Your task to perform on an android device: toggle wifi Image 0: 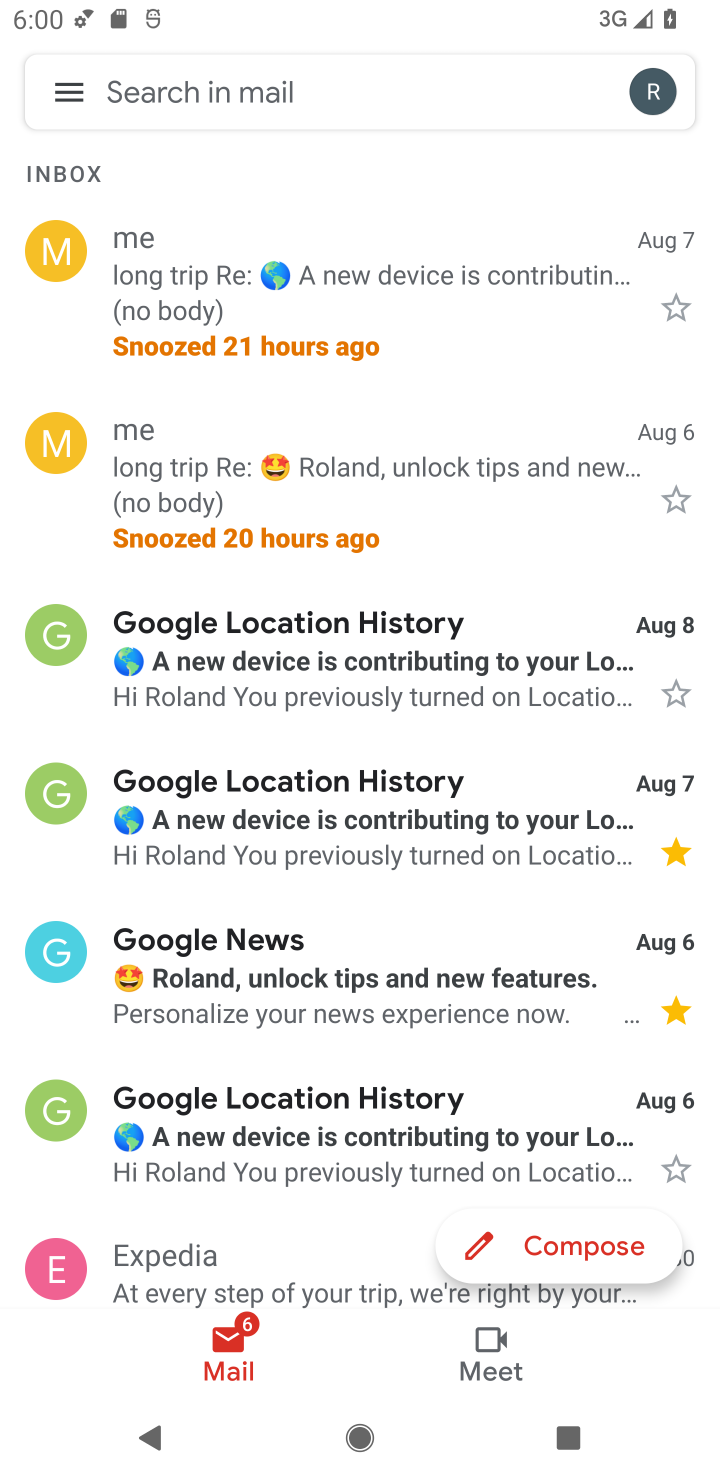
Step 0: press home button
Your task to perform on an android device: toggle wifi Image 1: 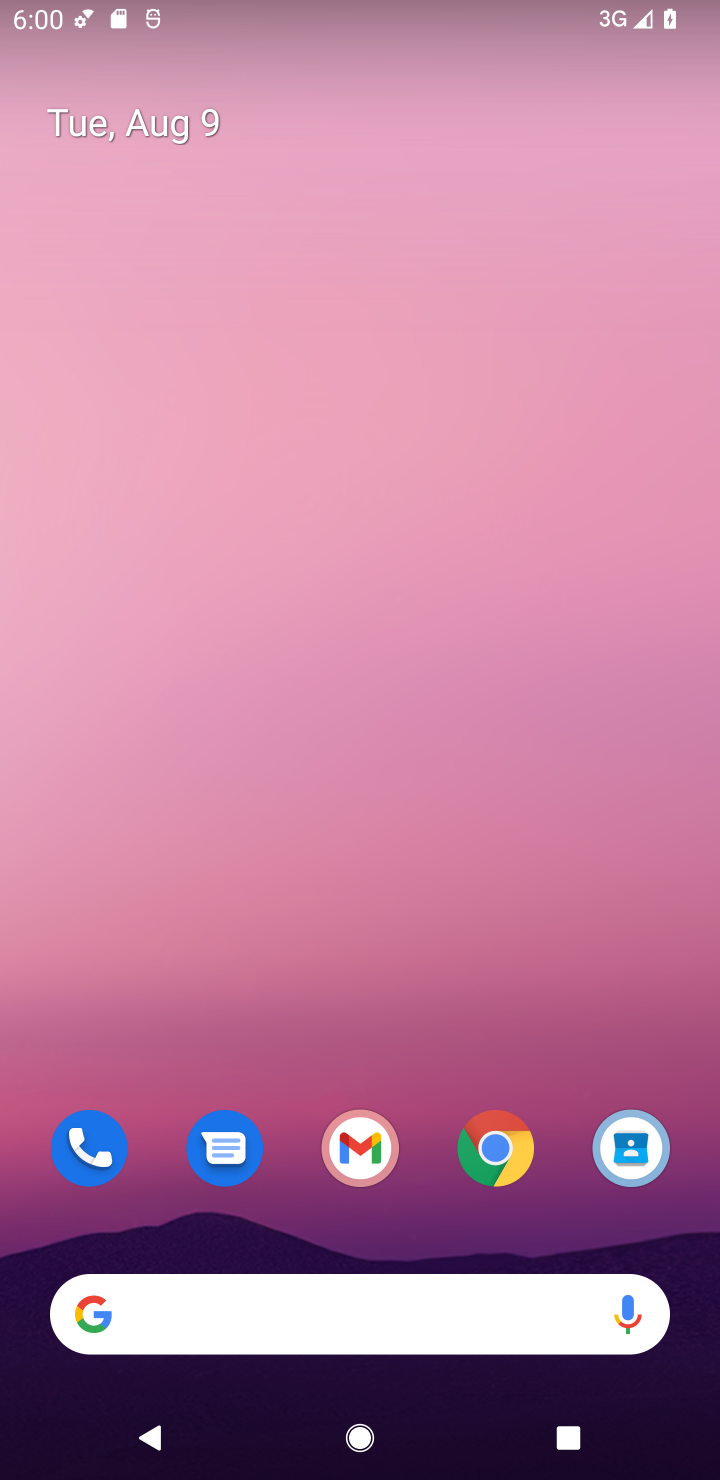
Step 1: drag from (396, 42) to (553, 523)
Your task to perform on an android device: toggle wifi Image 2: 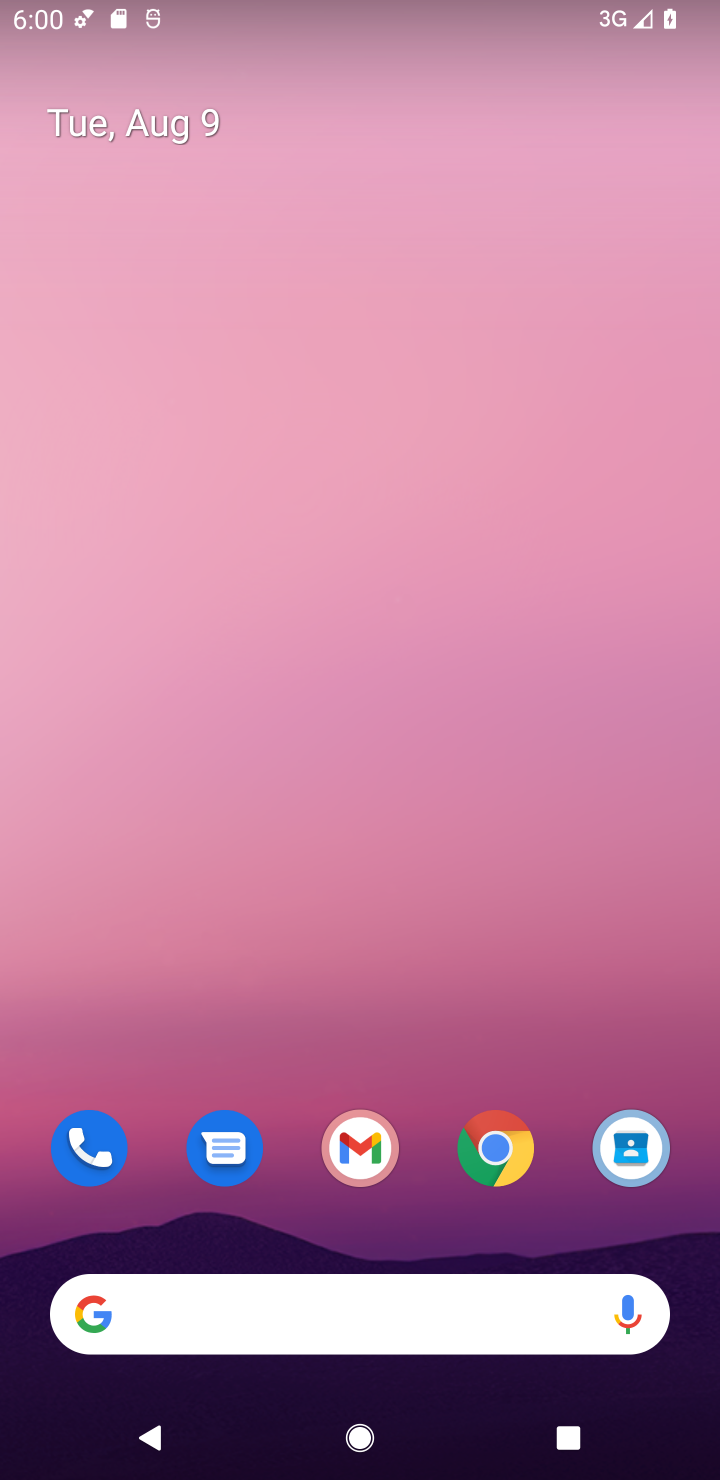
Step 2: drag from (341, 1219) to (467, 6)
Your task to perform on an android device: toggle wifi Image 3: 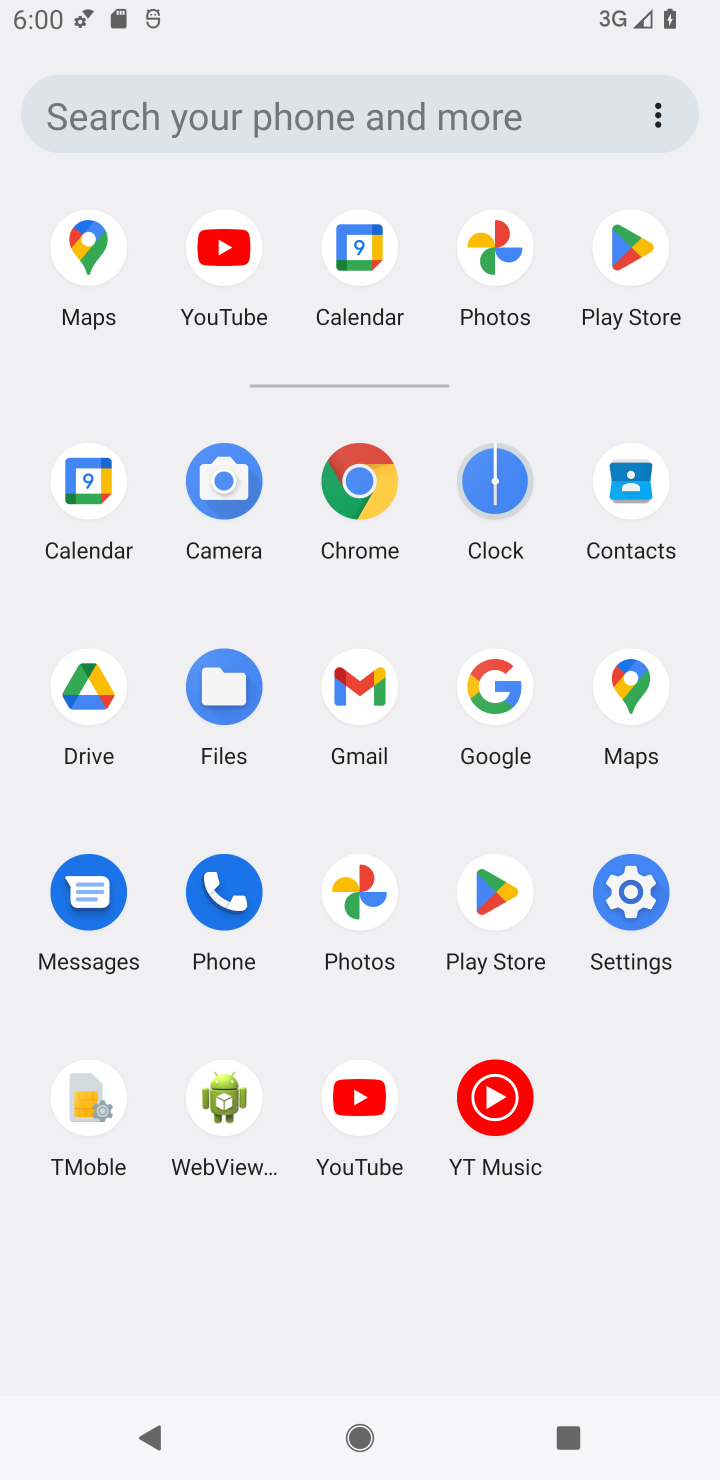
Step 3: click (649, 922)
Your task to perform on an android device: toggle wifi Image 4: 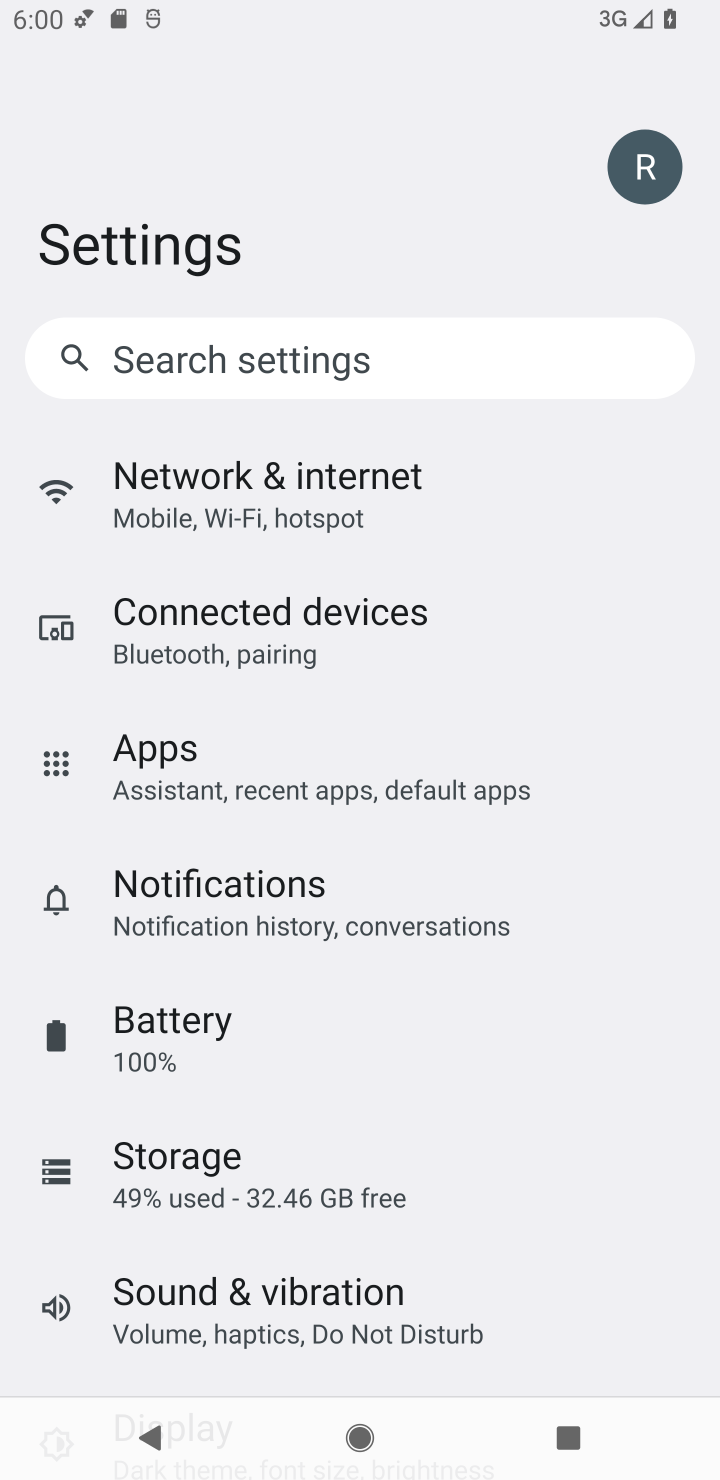
Step 4: click (354, 511)
Your task to perform on an android device: toggle wifi Image 5: 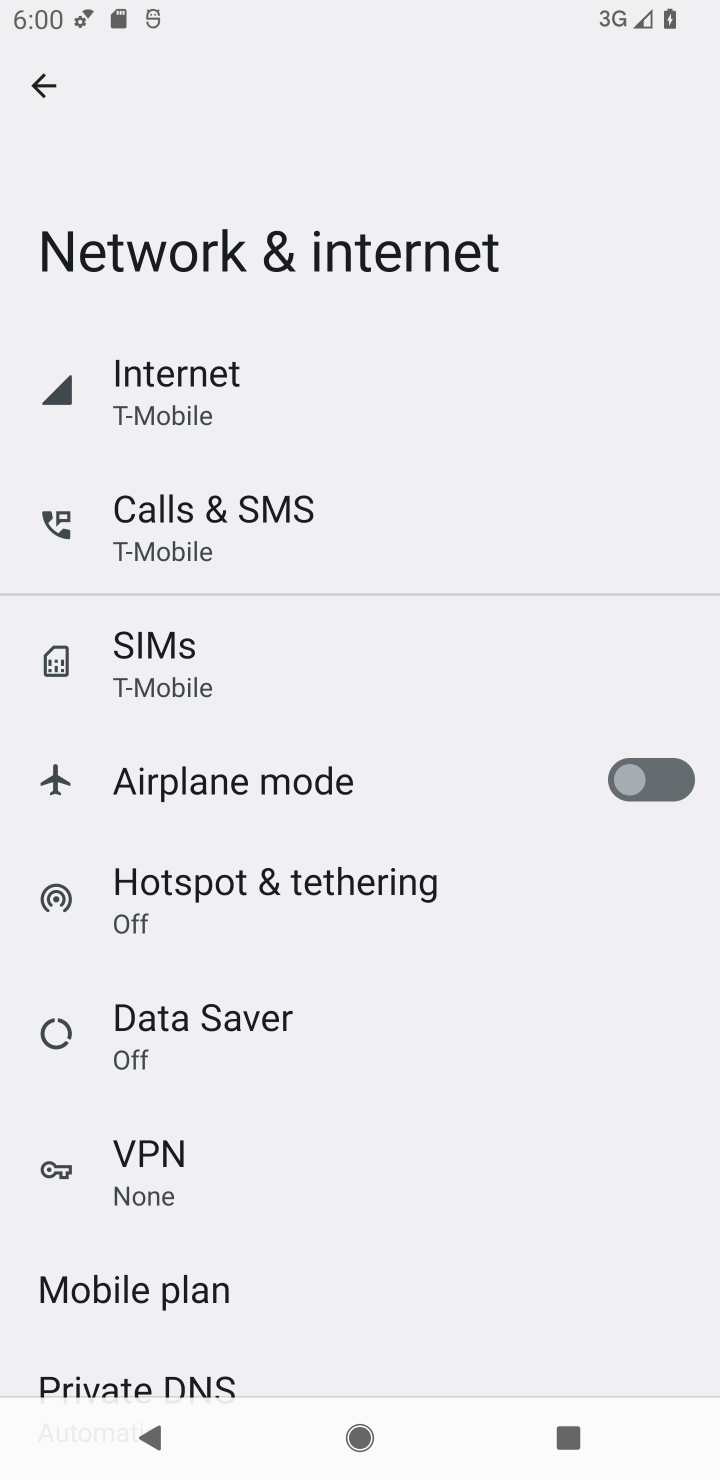
Step 5: click (245, 399)
Your task to perform on an android device: toggle wifi Image 6: 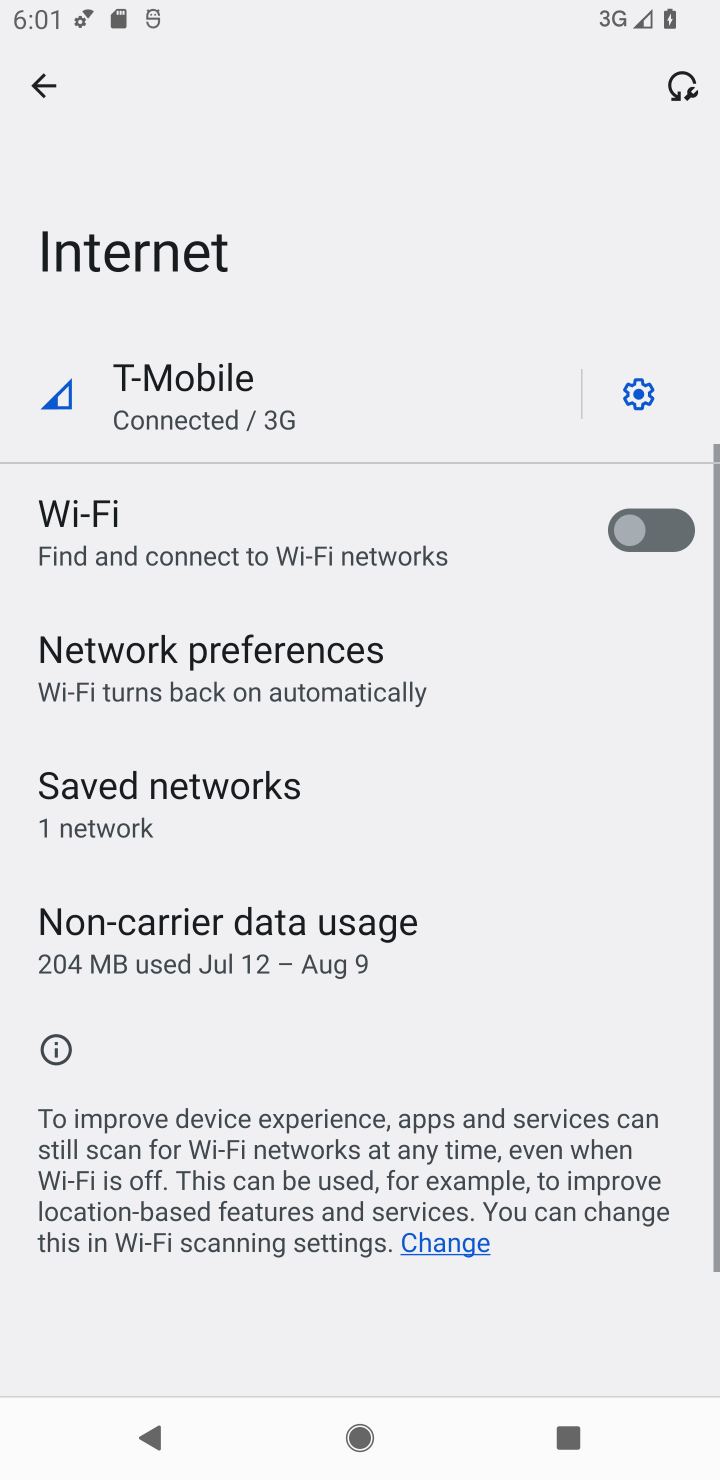
Step 6: click (577, 532)
Your task to perform on an android device: toggle wifi Image 7: 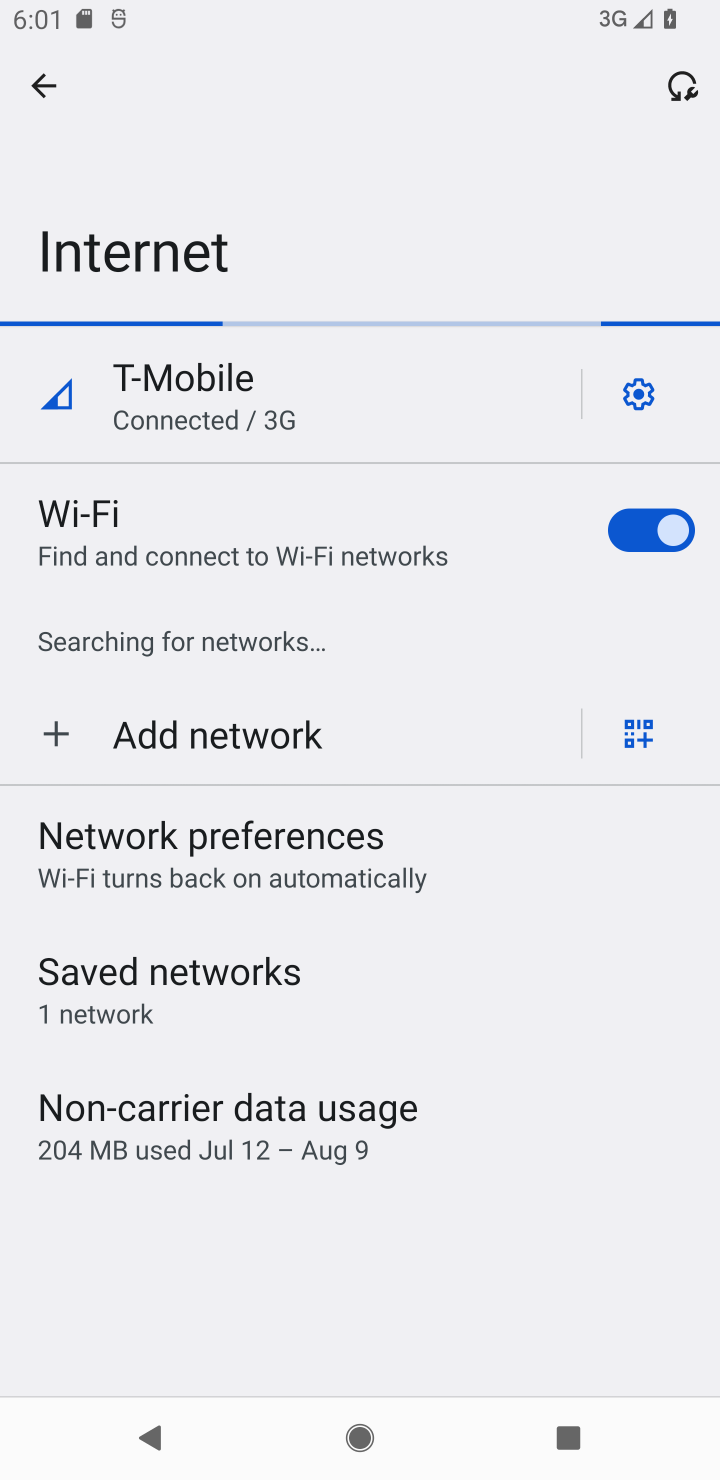
Step 7: task complete